Your task to perform on an android device: turn off sleep mode Image 0: 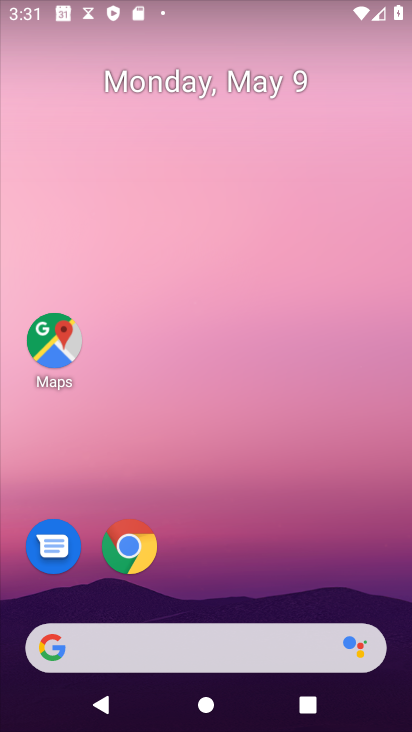
Step 0: drag from (310, 523) to (234, 111)
Your task to perform on an android device: turn off sleep mode Image 1: 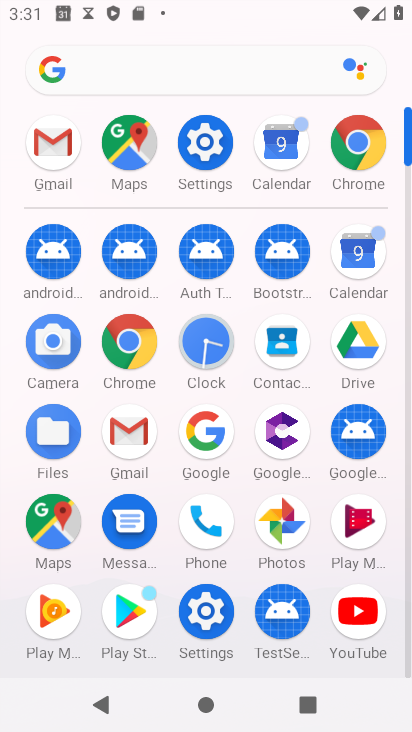
Step 1: click (218, 156)
Your task to perform on an android device: turn off sleep mode Image 2: 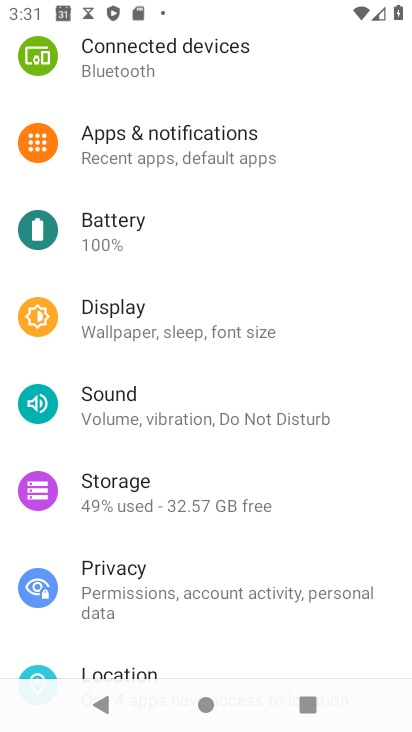
Step 2: click (147, 315)
Your task to perform on an android device: turn off sleep mode Image 3: 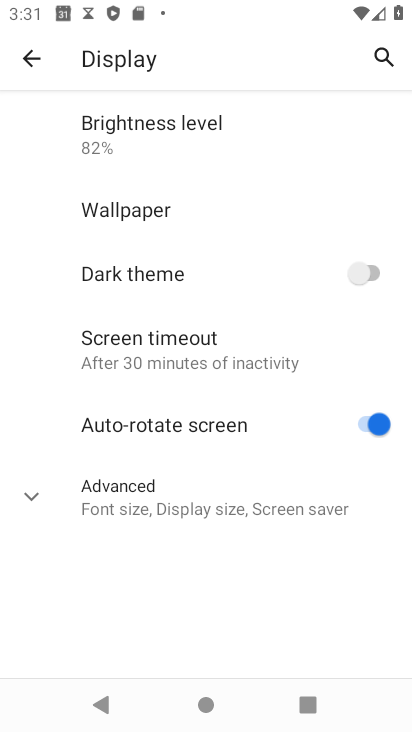
Step 3: click (200, 345)
Your task to perform on an android device: turn off sleep mode Image 4: 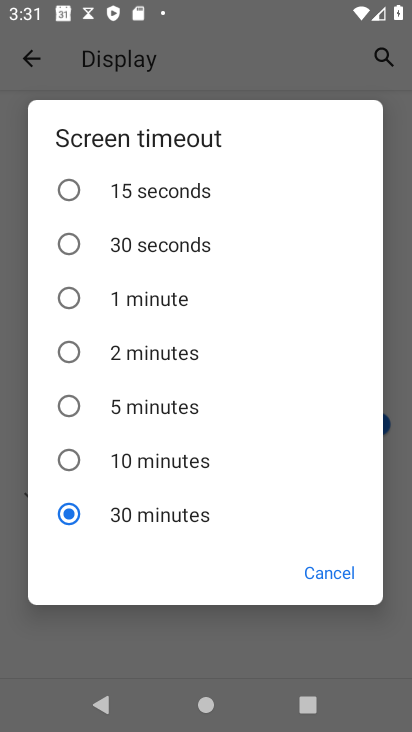
Step 4: task complete